Your task to perform on an android device: Go to internet settings Image 0: 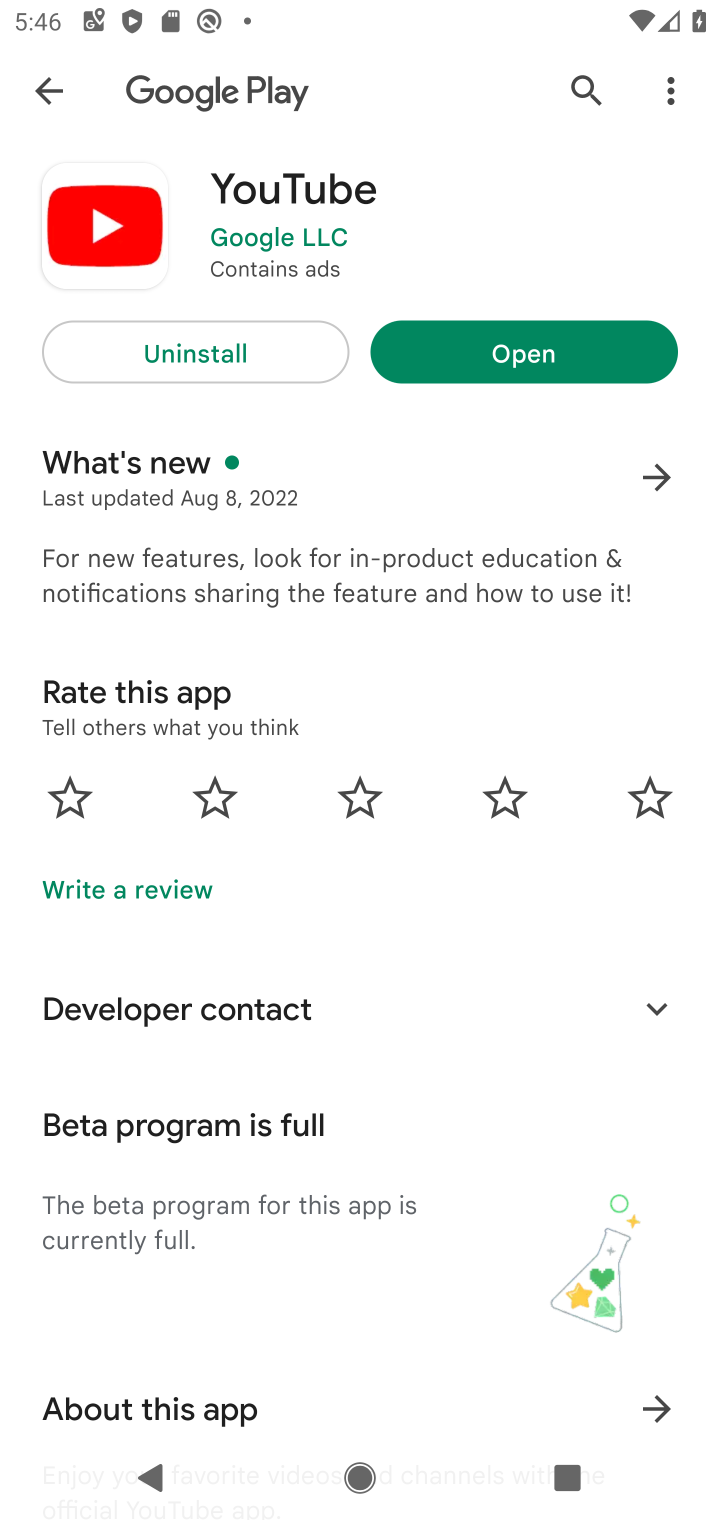
Step 0: press home button
Your task to perform on an android device: Go to internet settings Image 1: 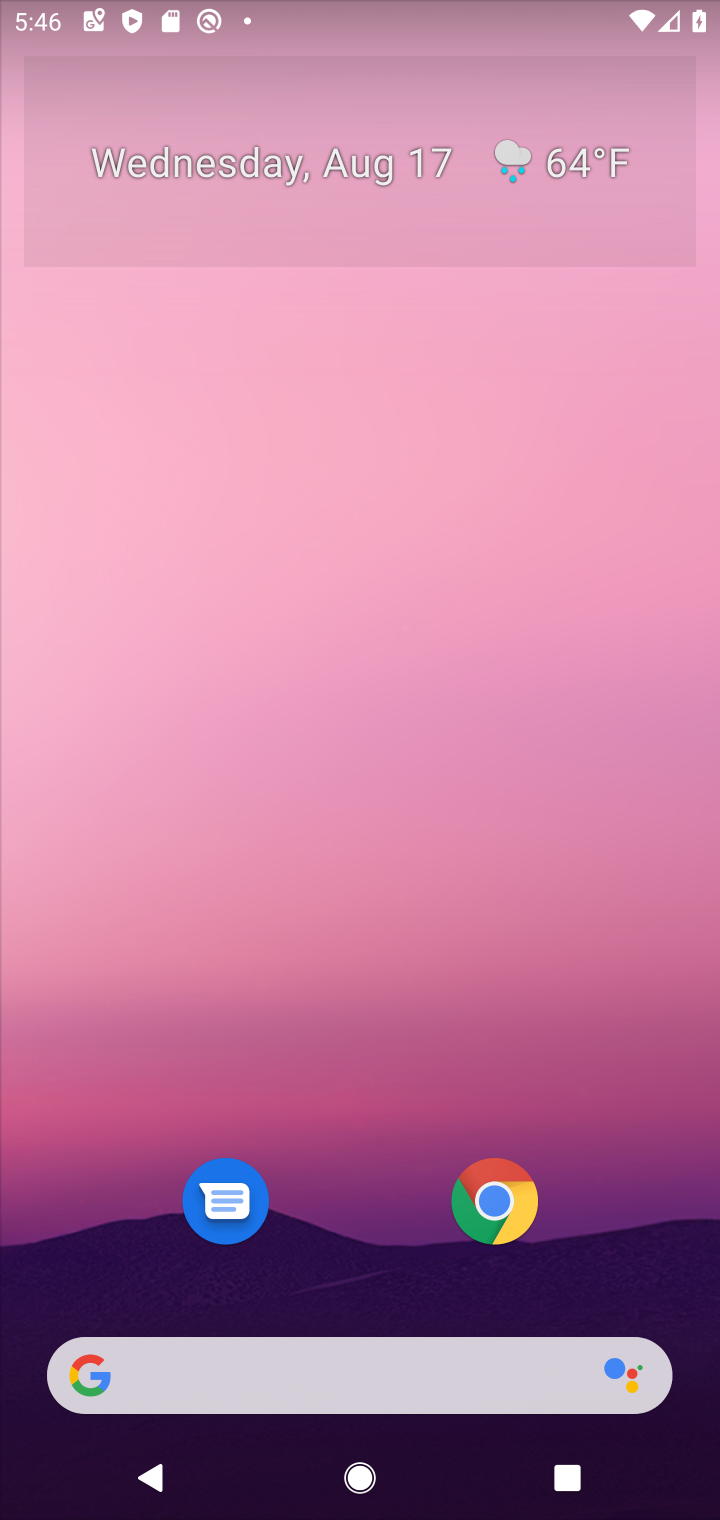
Step 1: drag from (352, 1239) to (333, 25)
Your task to perform on an android device: Go to internet settings Image 2: 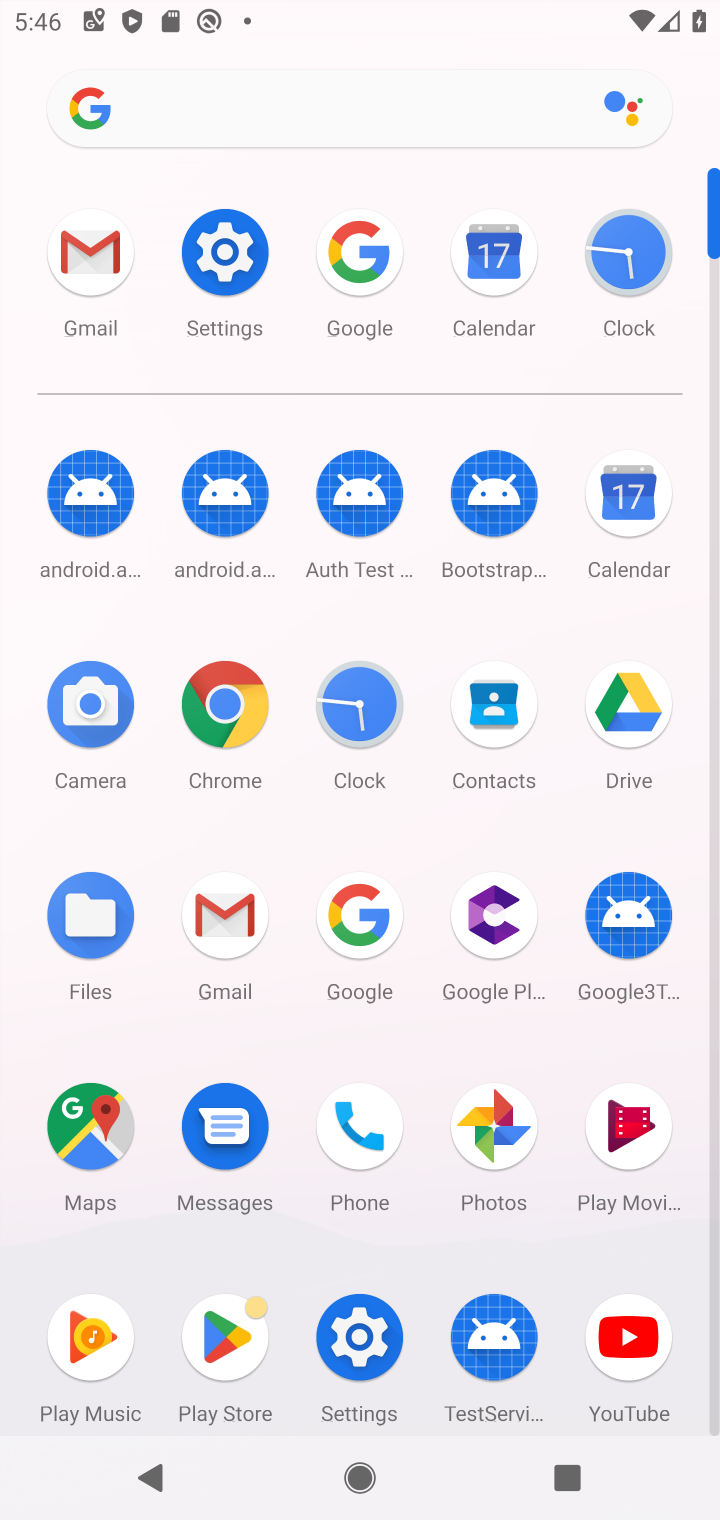
Step 2: click (229, 266)
Your task to perform on an android device: Go to internet settings Image 3: 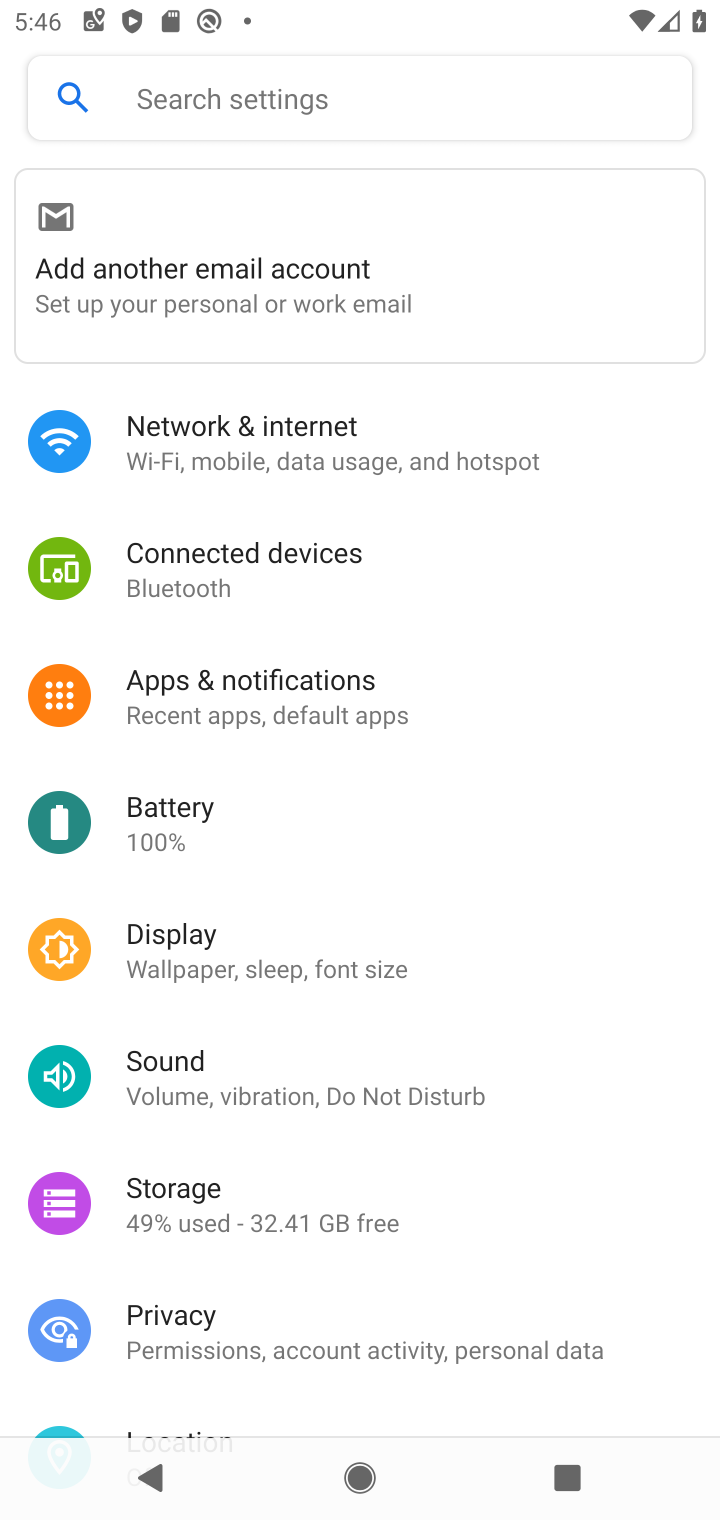
Step 3: click (229, 452)
Your task to perform on an android device: Go to internet settings Image 4: 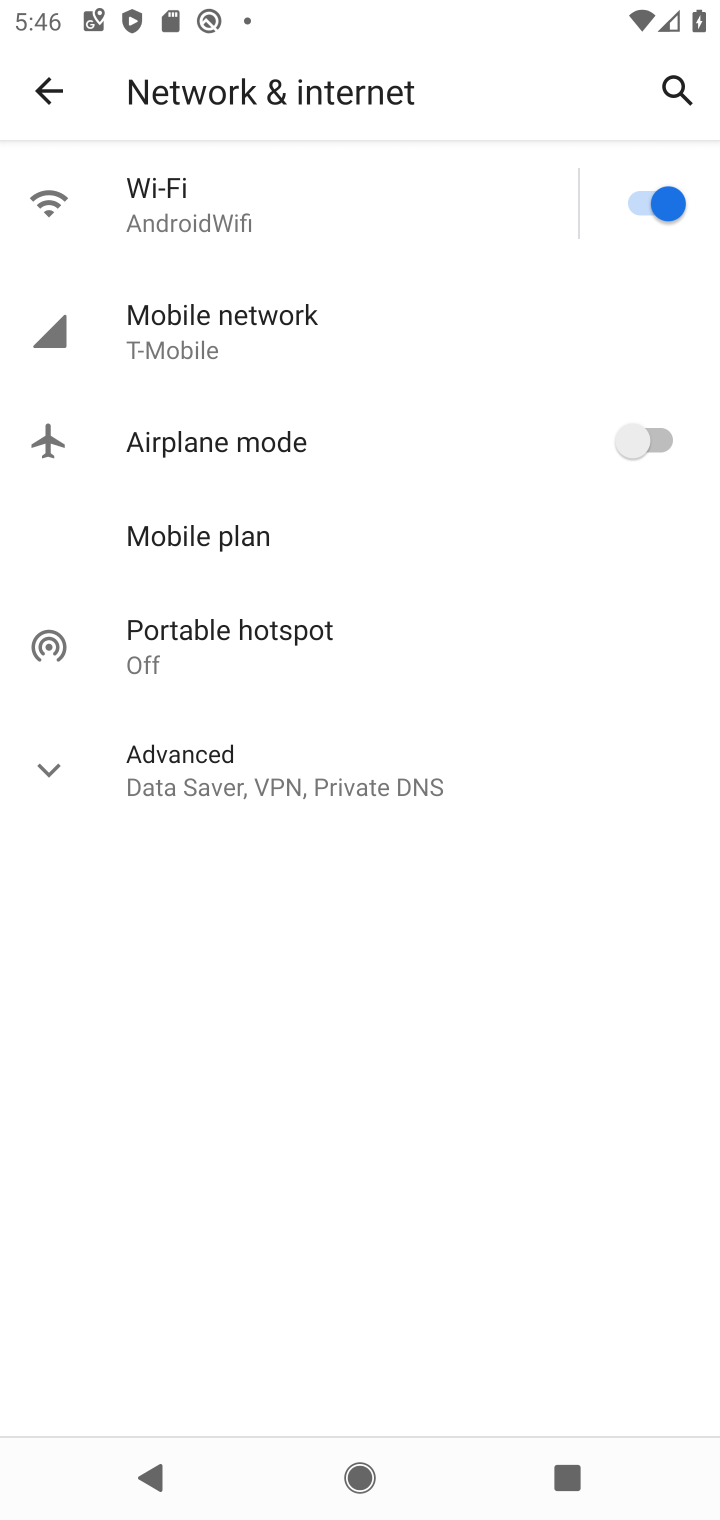
Step 4: task complete